Your task to perform on an android device: Search for vegetarian restaurants on Maps Image 0: 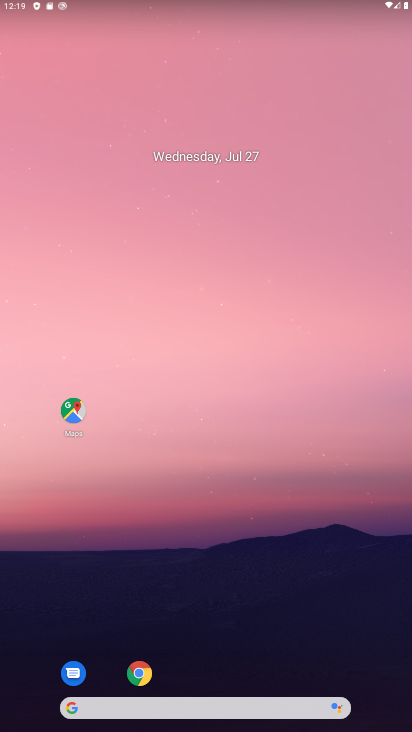
Step 0: click (232, 151)
Your task to perform on an android device: Search for vegetarian restaurants on Maps Image 1: 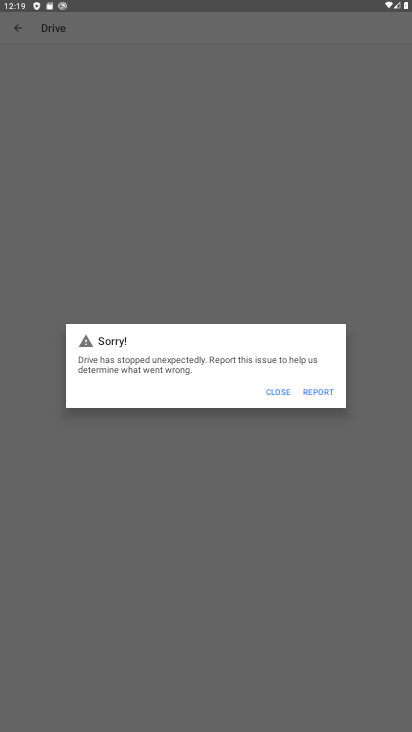
Step 1: press home button
Your task to perform on an android device: Search for vegetarian restaurants on Maps Image 2: 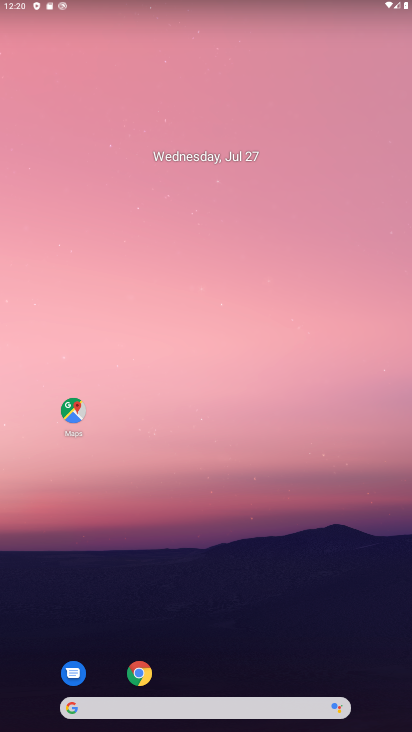
Step 2: drag from (269, 668) to (292, 27)
Your task to perform on an android device: Search for vegetarian restaurants on Maps Image 3: 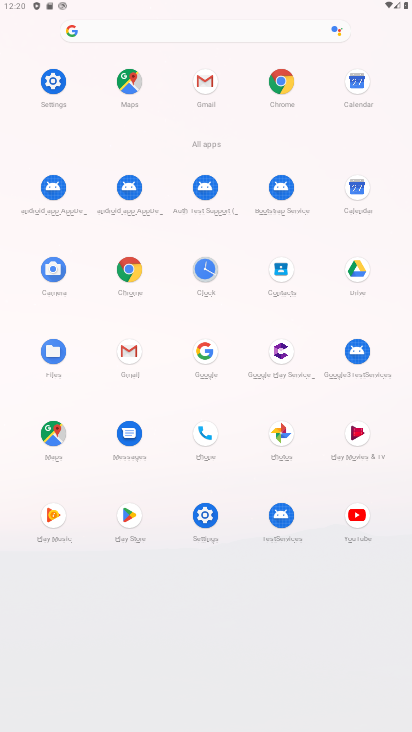
Step 3: click (56, 441)
Your task to perform on an android device: Search for vegetarian restaurants on Maps Image 4: 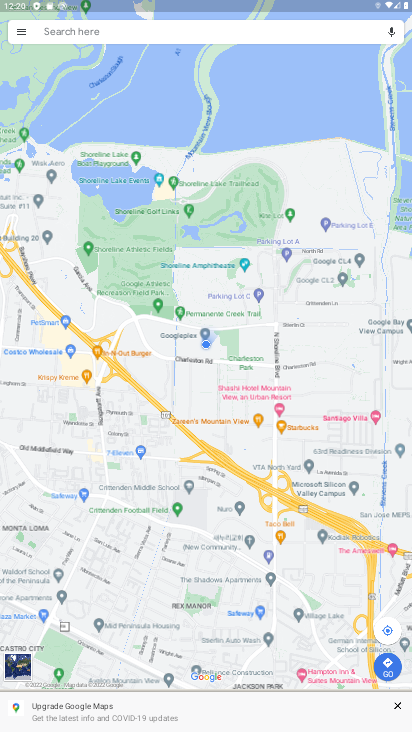
Step 4: click (224, 24)
Your task to perform on an android device: Search for vegetarian restaurants on Maps Image 5: 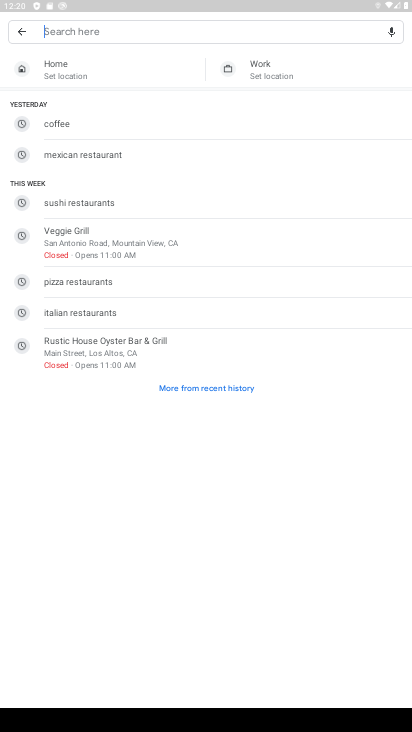
Step 5: type "vegetarian restaurants"
Your task to perform on an android device: Search for vegetarian restaurants on Maps Image 6: 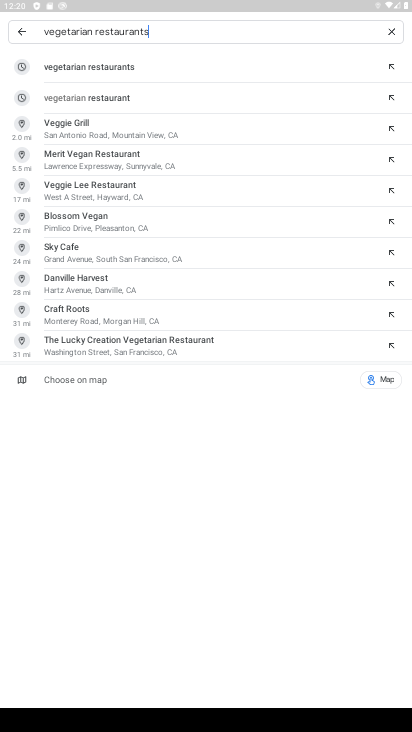
Step 6: click (119, 73)
Your task to perform on an android device: Search for vegetarian restaurants on Maps Image 7: 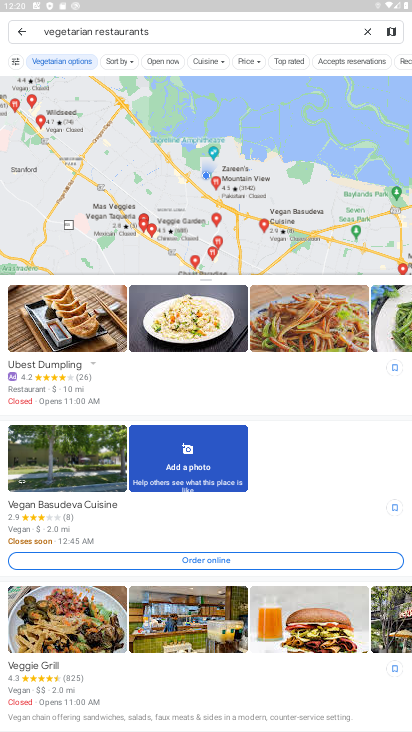
Step 7: task complete